Your task to perform on an android device: Go to privacy settings Image 0: 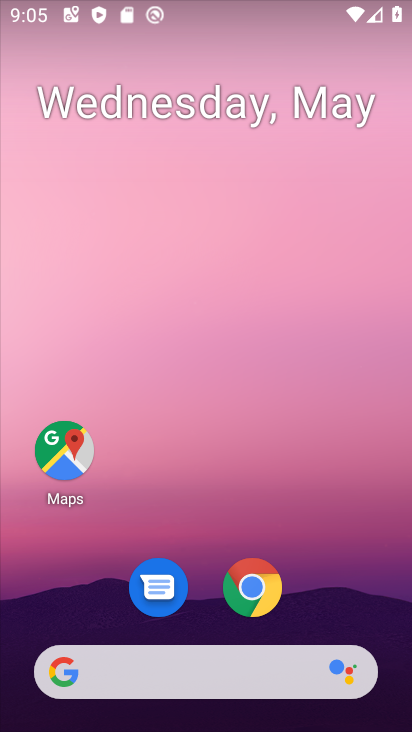
Step 0: drag from (206, 722) to (211, 71)
Your task to perform on an android device: Go to privacy settings Image 1: 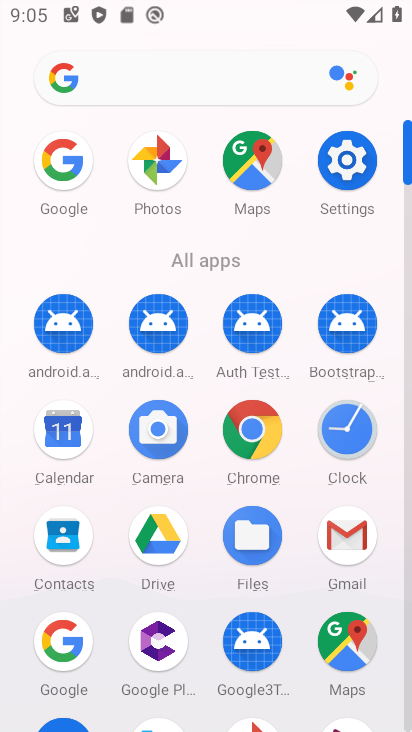
Step 1: click (353, 154)
Your task to perform on an android device: Go to privacy settings Image 2: 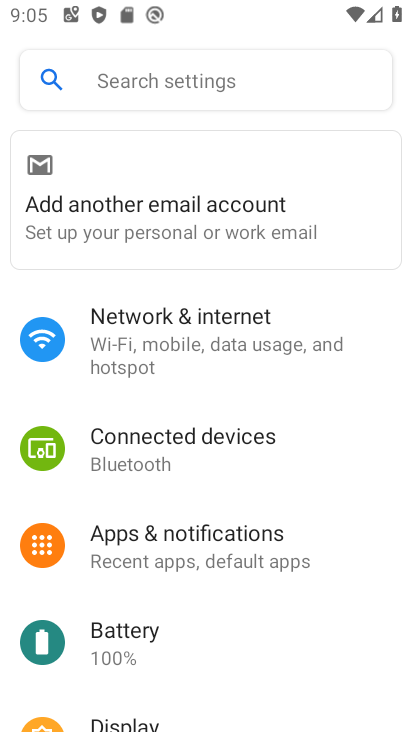
Step 2: drag from (185, 683) to (232, 330)
Your task to perform on an android device: Go to privacy settings Image 3: 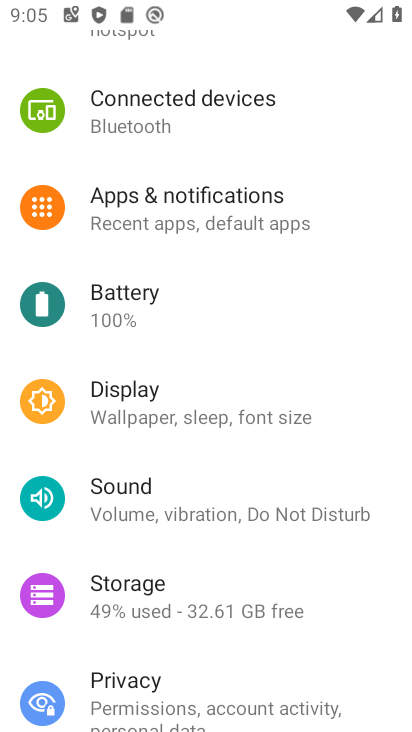
Step 3: click (126, 677)
Your task to perform on an android device: Go to privacy settings Image 4: 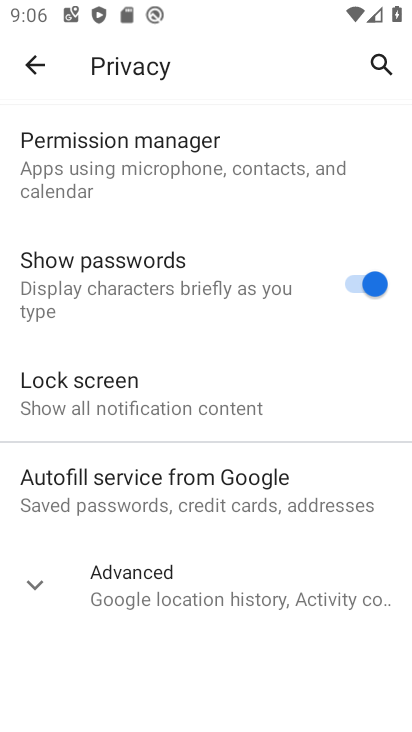
Step 4: task complete